Your task to perform on an android device: Go to settings Image 0: 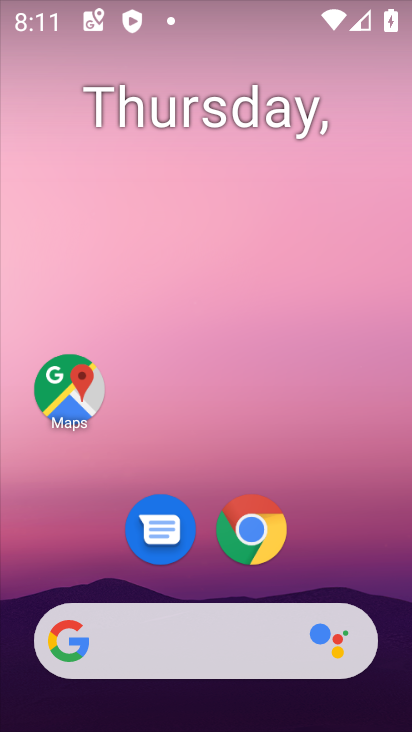
Step 0: drag from (188, 584) to (178, 63)
Your task to perform on an android device: Go to settings Image 1: 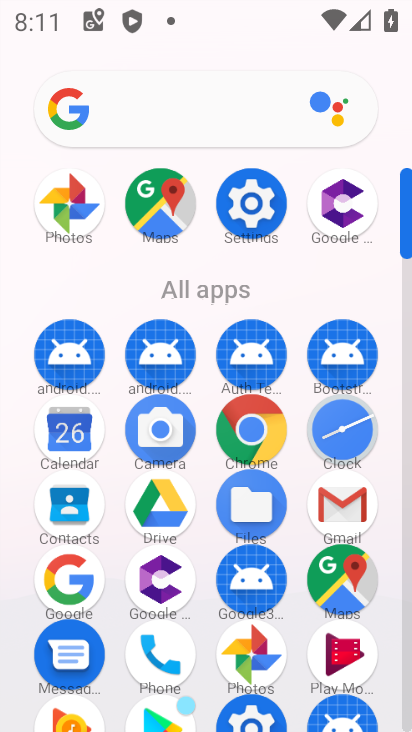
Step 1: click (250, 217)
Your task to perform on an android device: Go to settings Image 2: 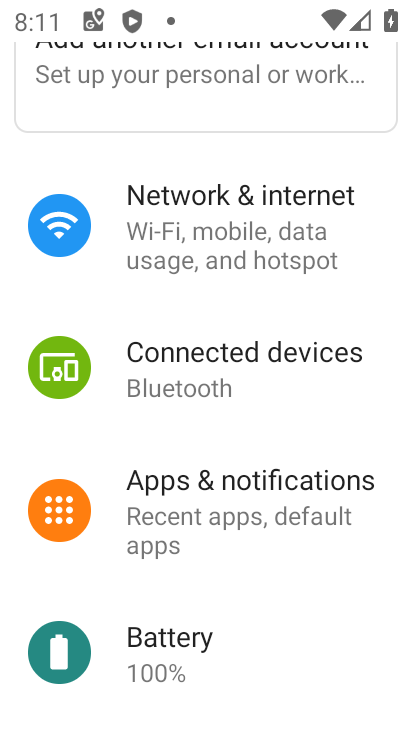
Step 2: task complete